Your task to perform on an android device: Open Chrome and go to settings Image 0: 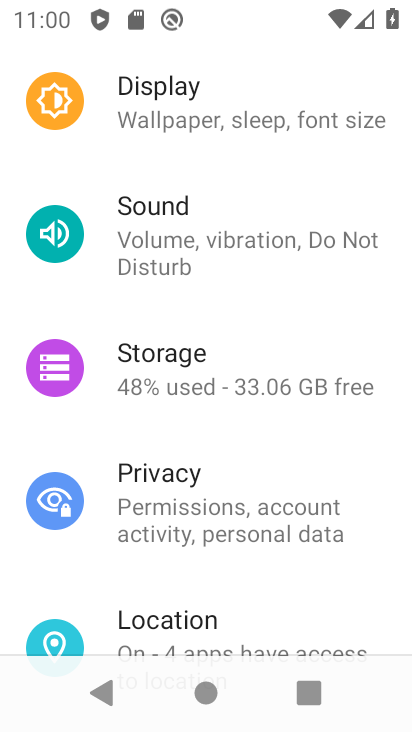
Step 0: press home button
Your task to perform on an android device: Open Chrome and go to settings Image 1: 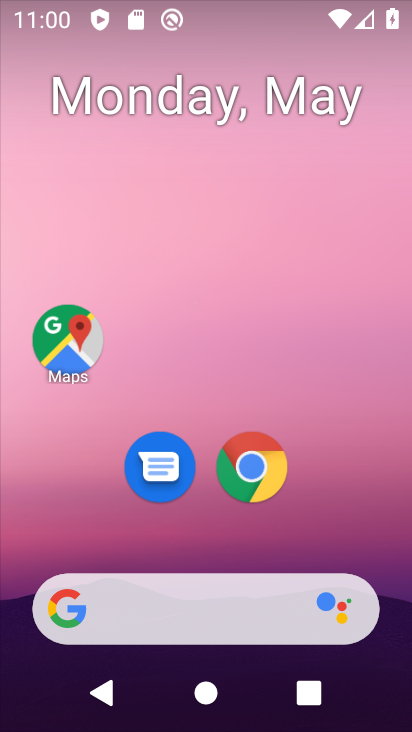
Step 1: click (259, 480)
Your task to perform on an android device: Open Chrome and go to settings Image 2: 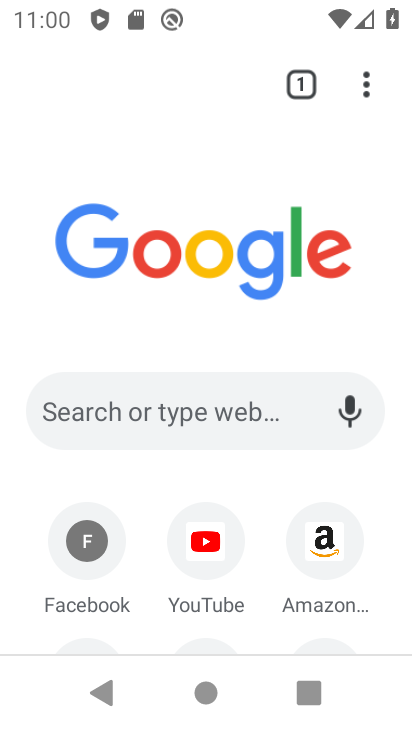
Step 2: click (373, 100)
Your task to perform on an android device: Open Chrome and go to settings Image 3: 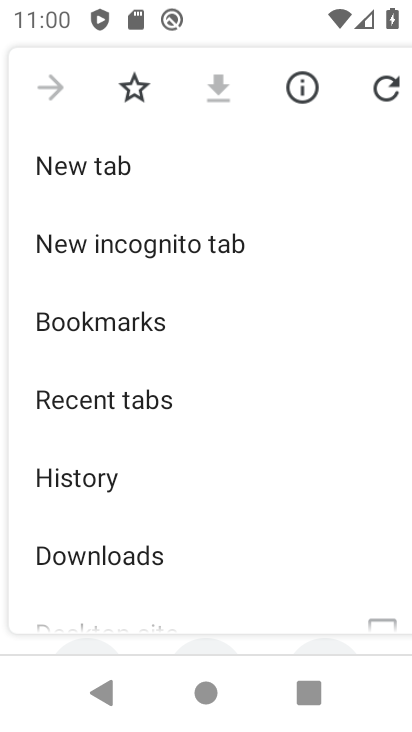
Step 3: drag from (206, 561) to (257, 345)
Your task to perform on an android device: Open Chrome and go to settings Image 4: 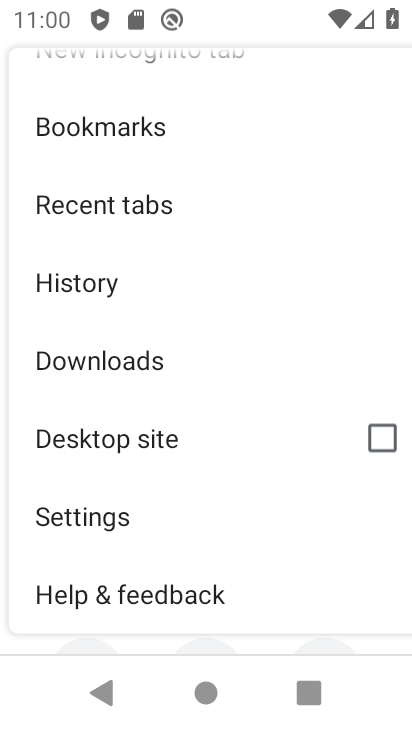
Step 4: click (200, 494)
Your task to perform on an android device: Open Chrome and go to settings Image 5: 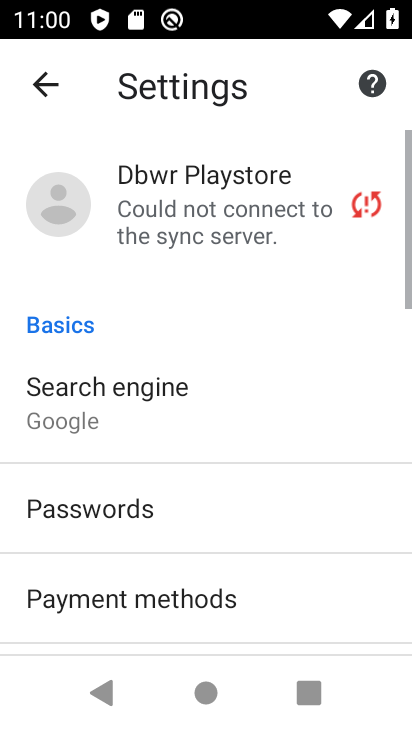
Step 5: task complete